Your task to perform on an android device: change the clock style Image 0: 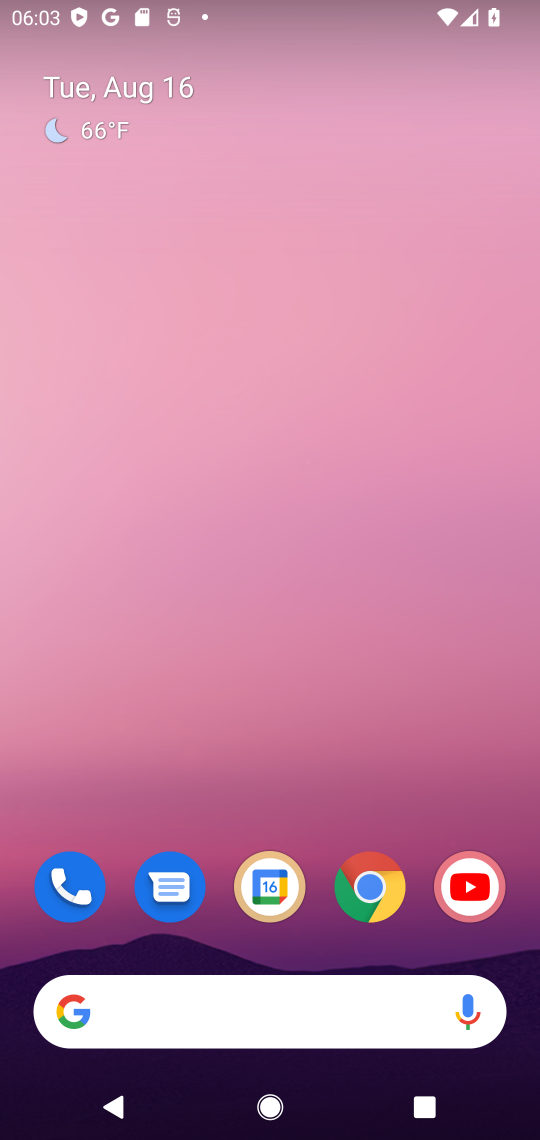
Step 0: drag from (298, 734) to (283, 48)
Your task to perform on an android device: change the clock style Image 1: 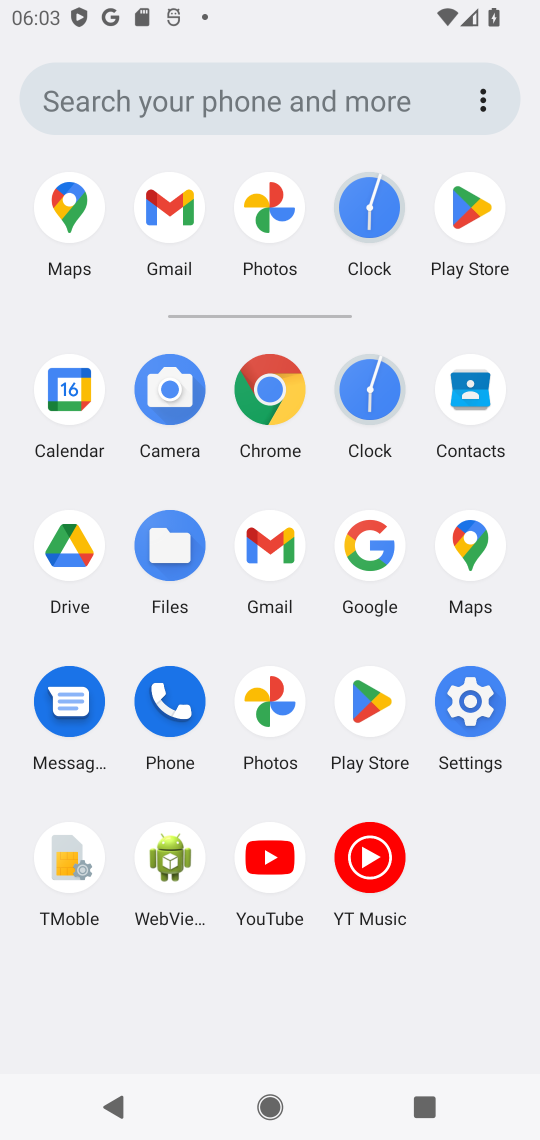
Step 1: click (384, 374)
Your task to perform on an android device: change the clock style Image 2: 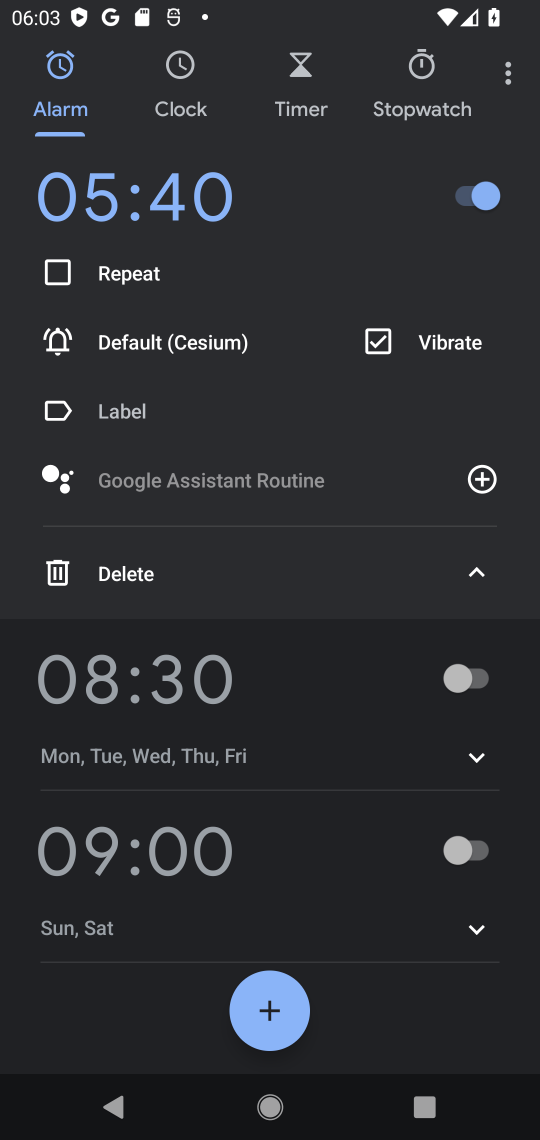
Step 2: click (519, 69)
Your task to perform on an android device: change the clock style Image 3: 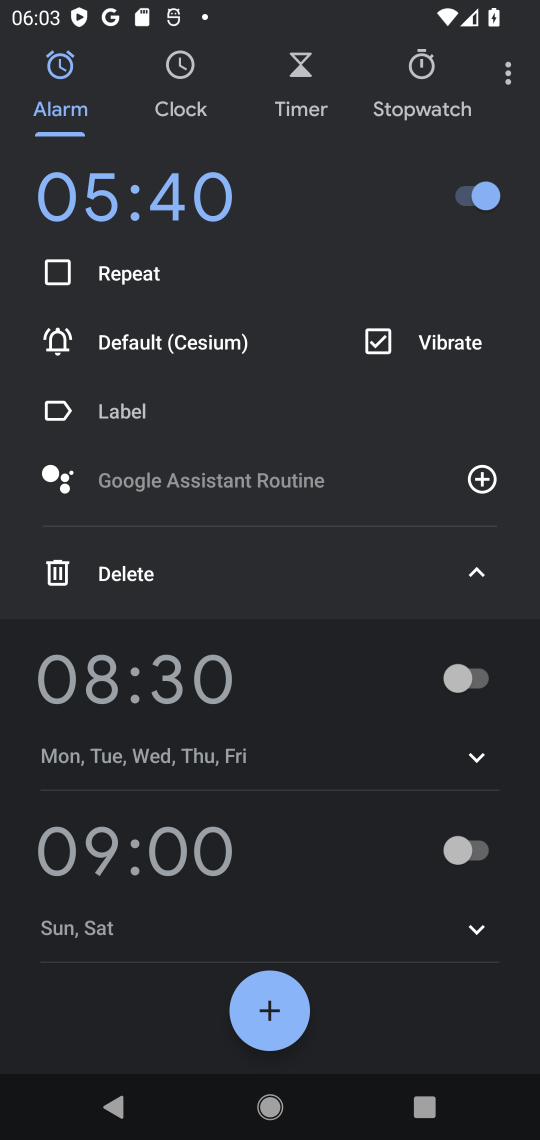
Step 3: click (499, 76)
Your task to perform on an android device: change the clock style Image 4: 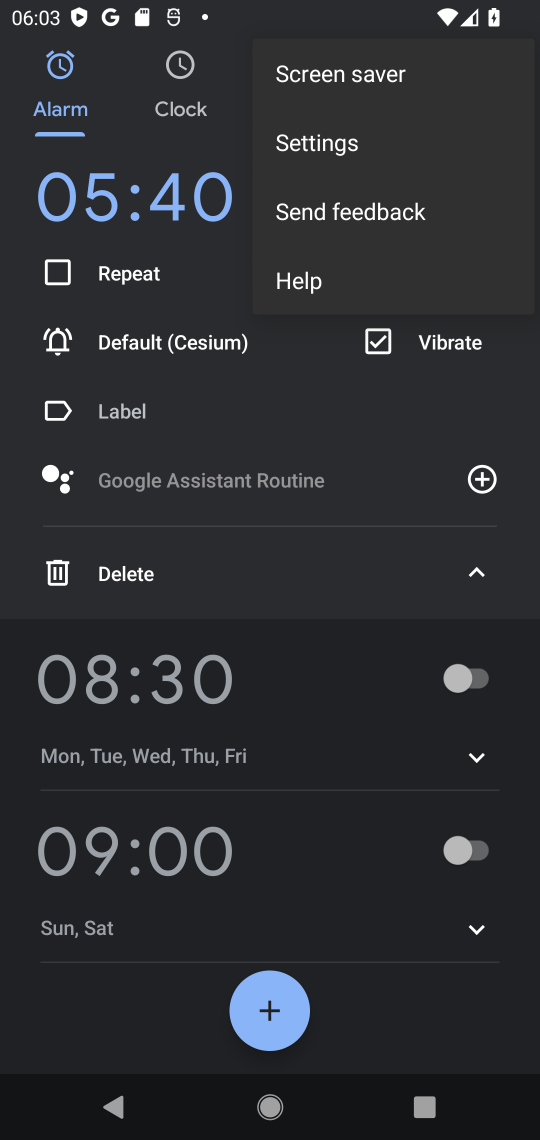
Step 4: click (302, 140)
Your task to perform on an android device: change the clock style Image 5: 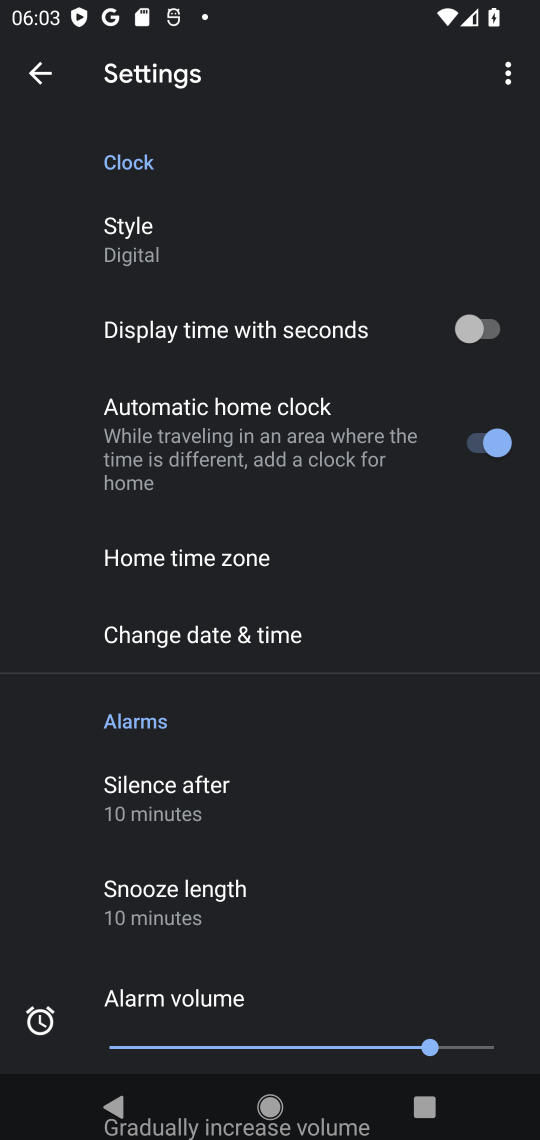
Step 5: click (191, 224)
Your task to perform on an android device: change the clock style Image 6: 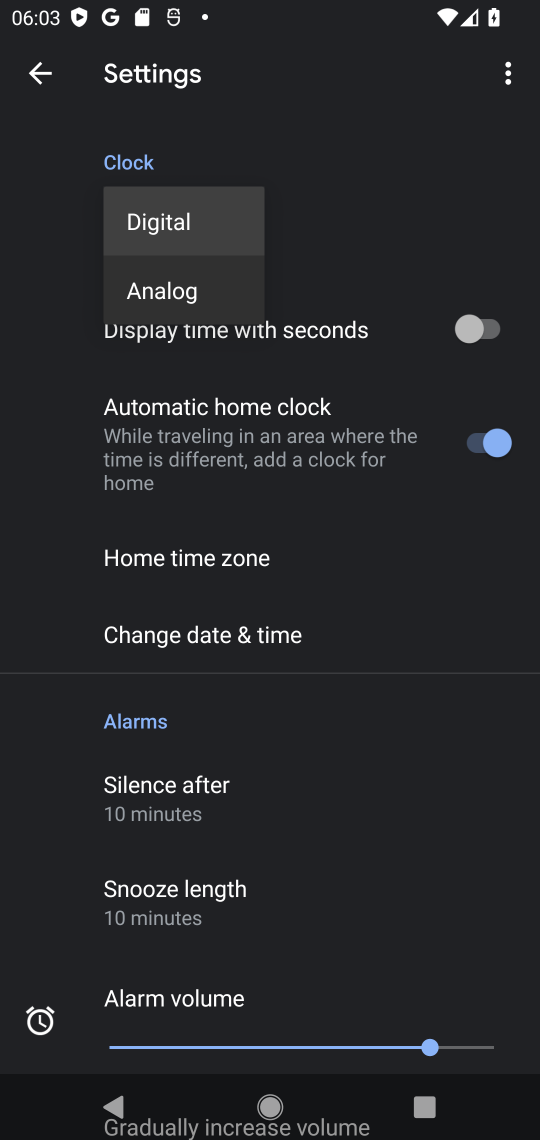
Step 6: click (206, 321)
Your task to perform on an android device: change the clock style Image 7: 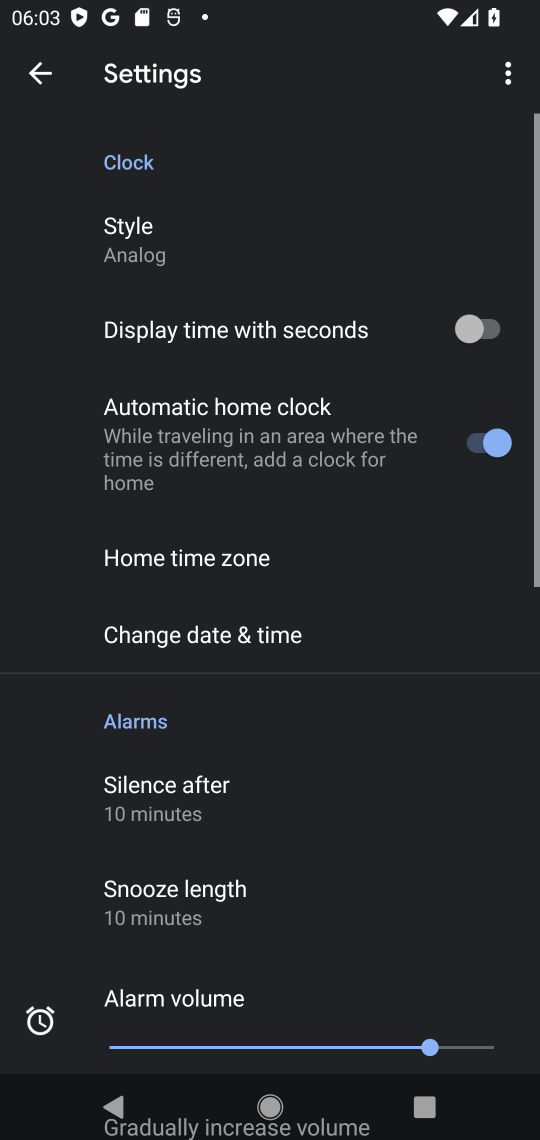
Step 7: click (199, 299)
Your task to perform on an android device: change the clock style Image 8: 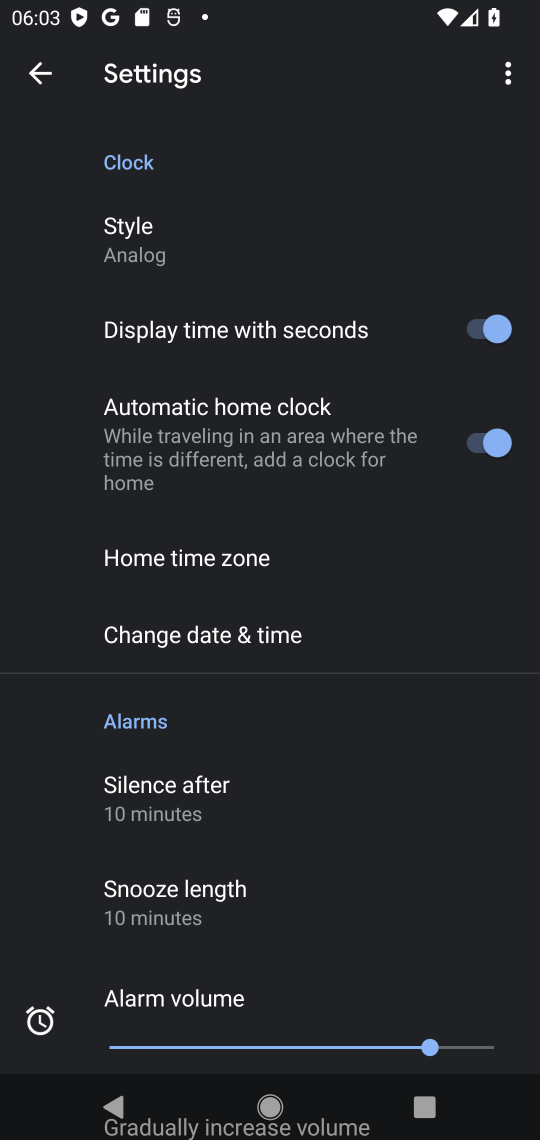
Step 8: click (454, 323)
Your task to perform on an android device: change the clock style Image 9: 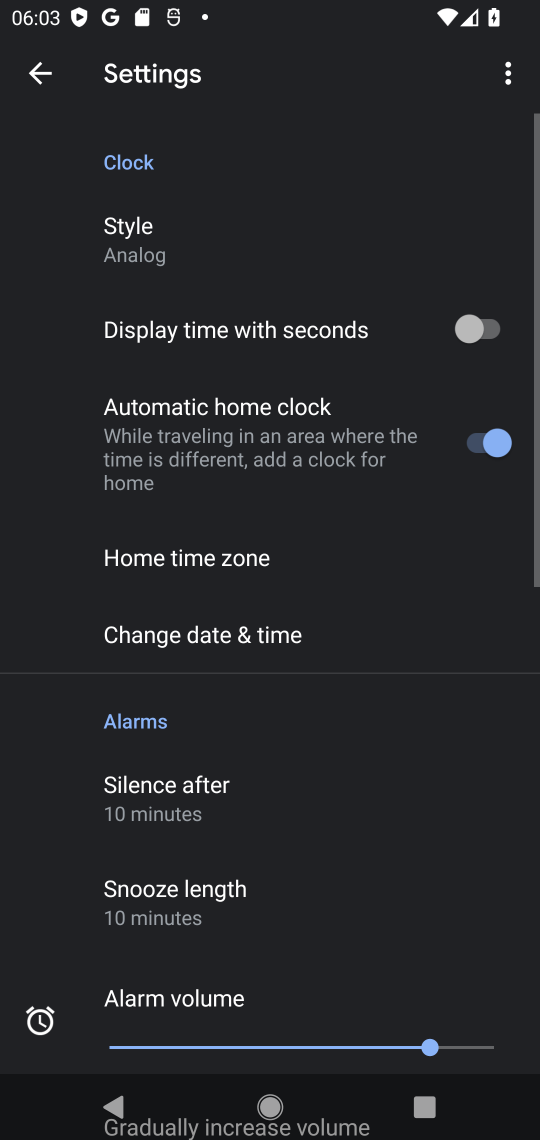
Step 9: task complete